Your task to perform on an android device: clear history in the chrome app Image 0: 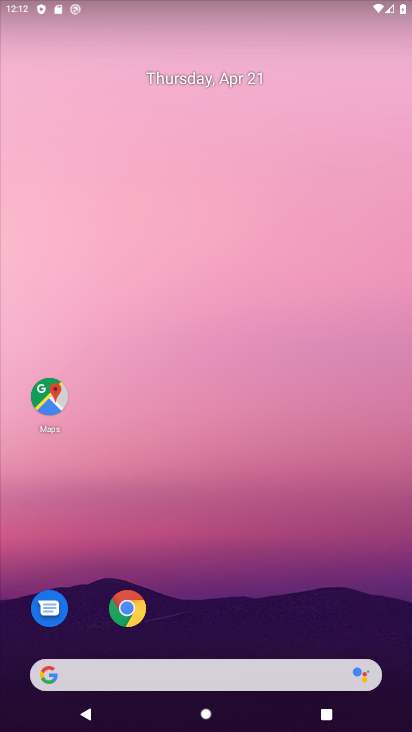
Step 0: drag from (215, 609) to (69, 182)
Your task to perform on an android device: clear history in the chrome app Image 1: 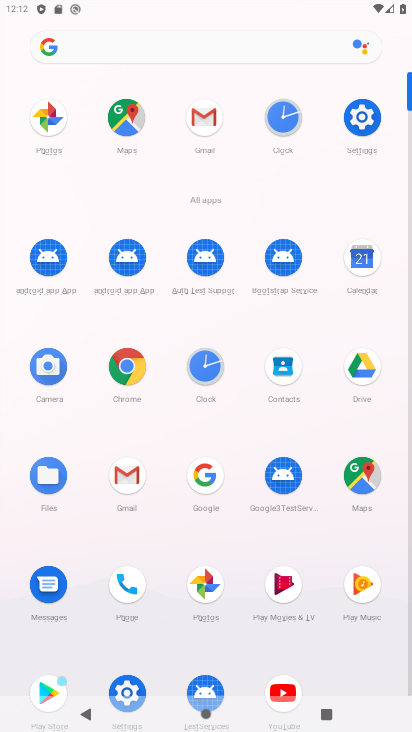
Step 1: click (135, 372)
Your task to perform on an android device: clear history in the chrome app Image 2: 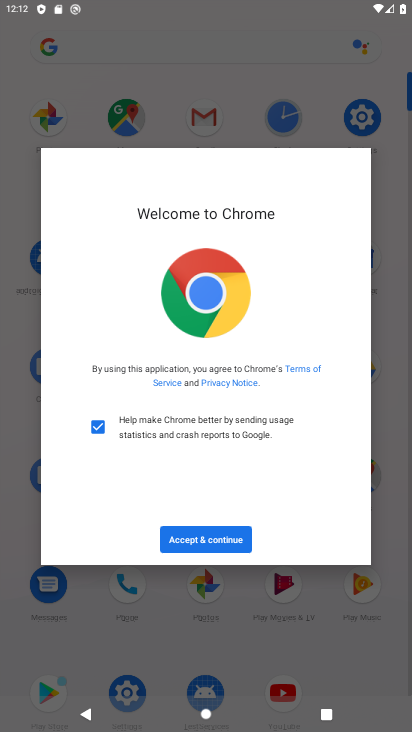
Step 2: click (189, 540)
Your task to perform on an android device: clear history in the chrome app Image 3: 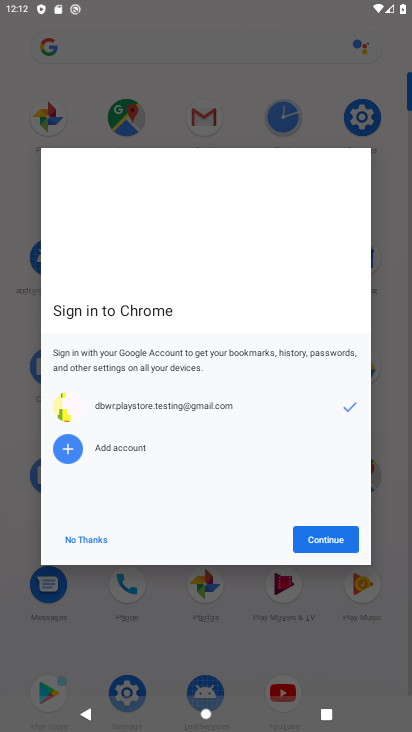
Step 3: click (344, 542)
Your task to perform on an android device: clear history in the chrome app Image 4: 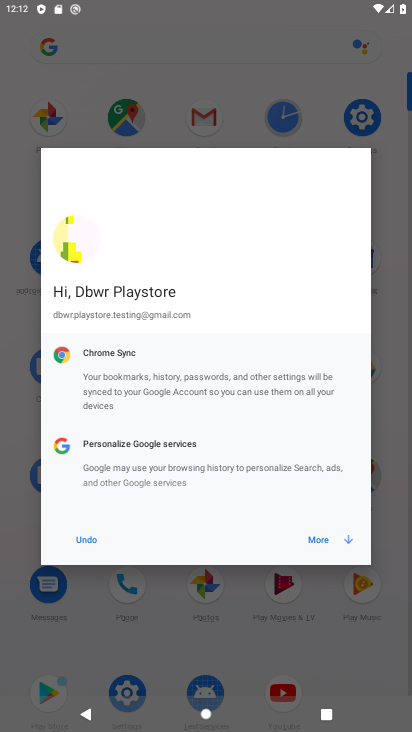
Step 4: click (341, 538)
Your task to perform on an android device: clear history in the chrome app Image 5: 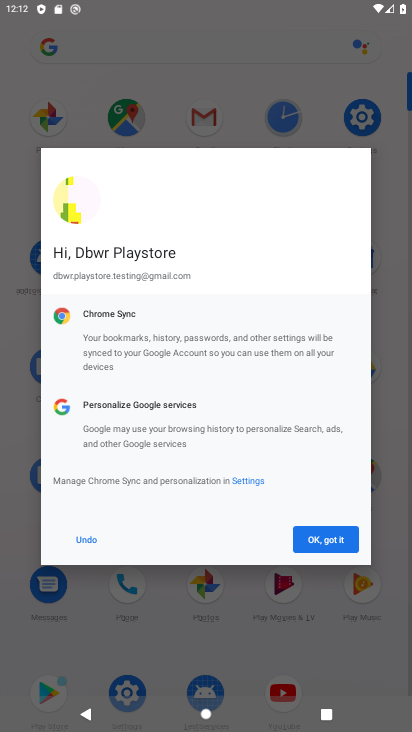
Step 5: click (341, 538)
Your task to perform on an android device: clear history in the chrome app Image 6: 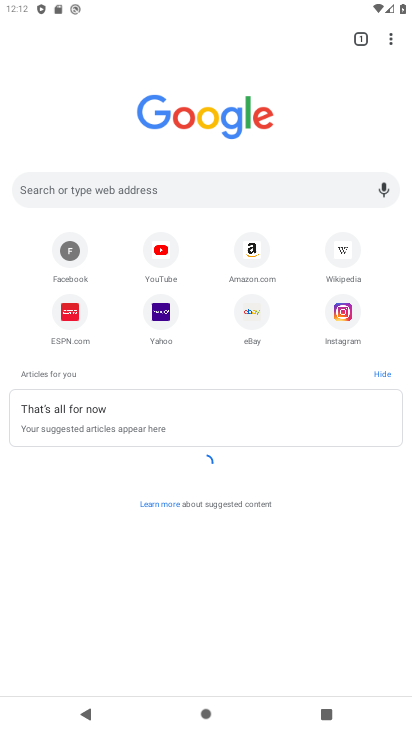
Step 6: task complete